Your task to perform on an android device: Open Chrome and go to settings Image 0: 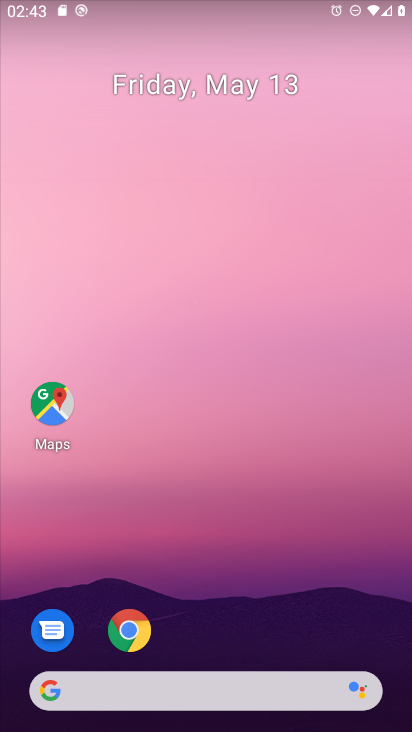
Step 0: drag from (224, 714) to (291, 245)
Your task to perform on an android device: Open Chrome and go to settings Image 1: 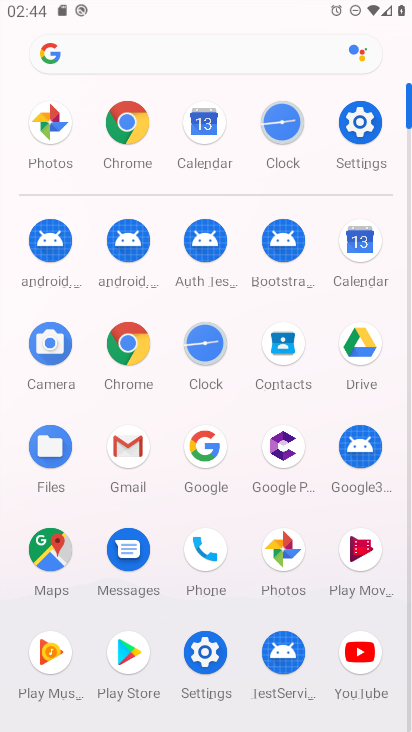
Step 1: click (129, 355)
Your task to perform on an android device: Open Chrome and go to settings Image 2: 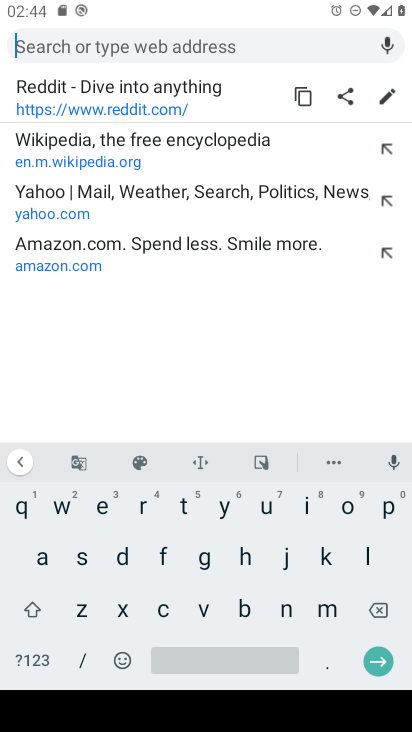
Step 2: press back button
Your task to perform on an android device: Open Chrome and go to settings Image 3: 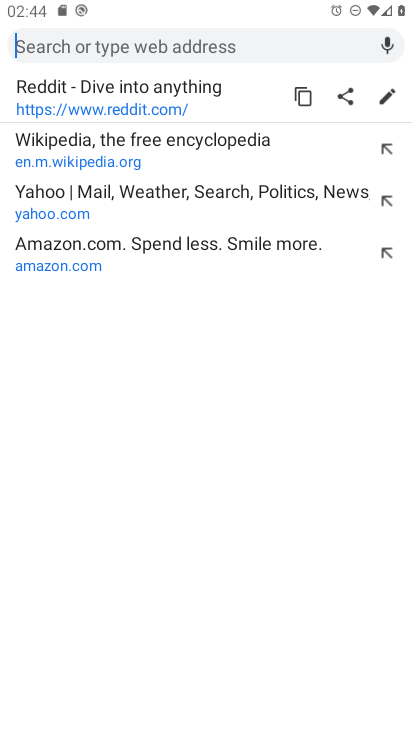
Step 3: press back button
Your task to perform on an android device: Open Chrome and go to settings Image 4: 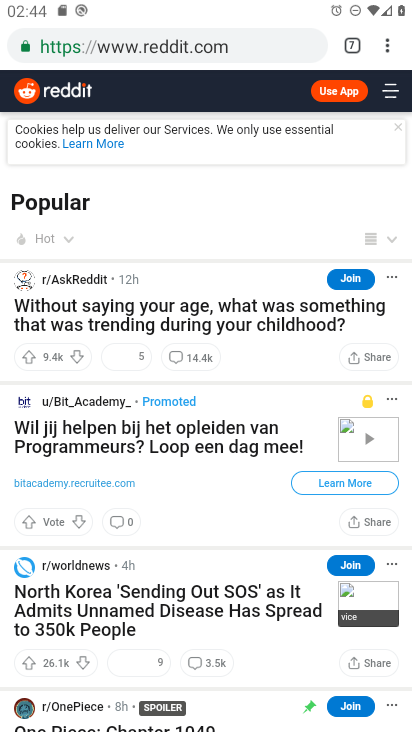
Step 4: click (385, 51)
Your task to perform on an android device: Open Chrome and go to settings Image 5: 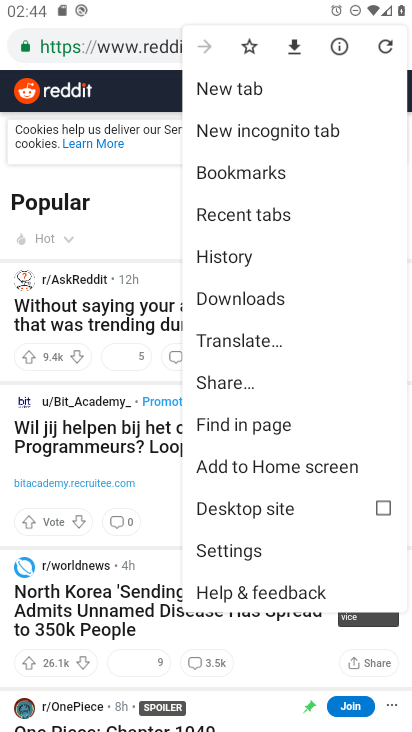
Step 5: click (233, 547)
Your task to perform on an android device: Open Chrome and go to settings Image 6: 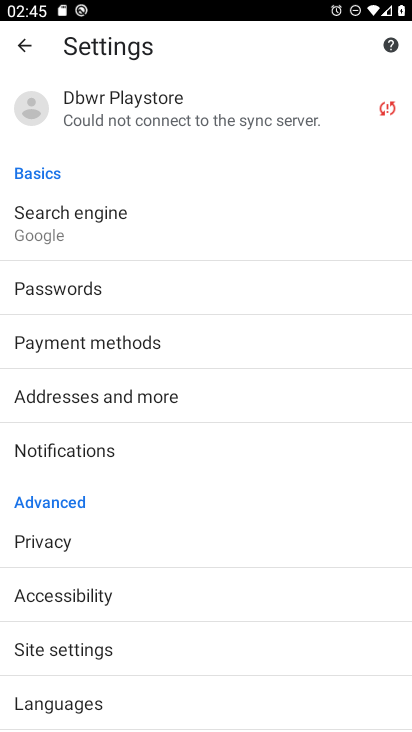
Step 6: task complete